Your task to perform on an android device: turn off airplane mode Image 0: 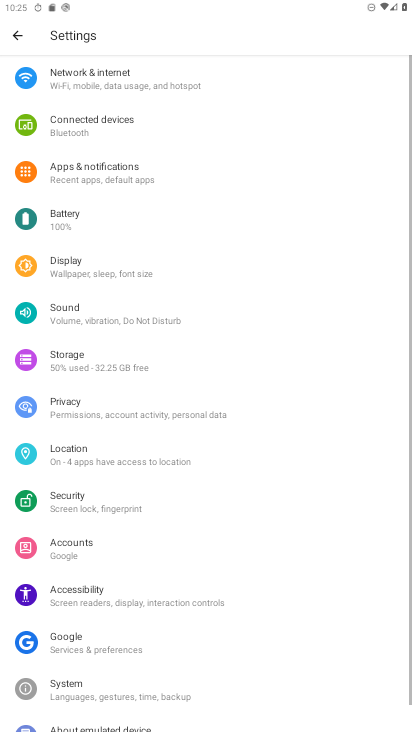
Step 0: press home button
Your task to perform on an android device: turn off airplane mode Image 1: 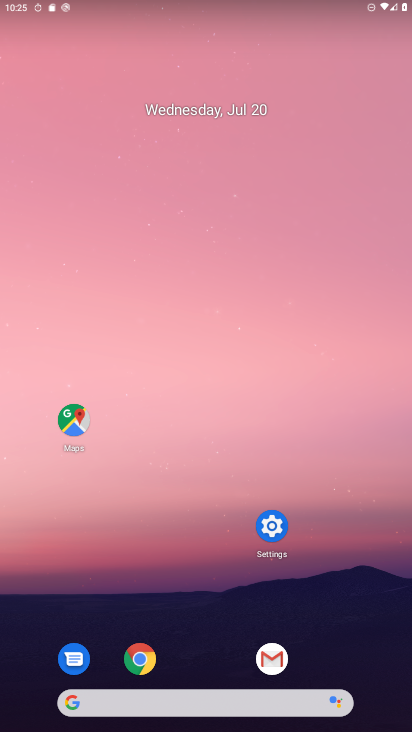
Step 1: click (268, 530)
Your task to perform on an android device: turn off airplane mode Image 2: 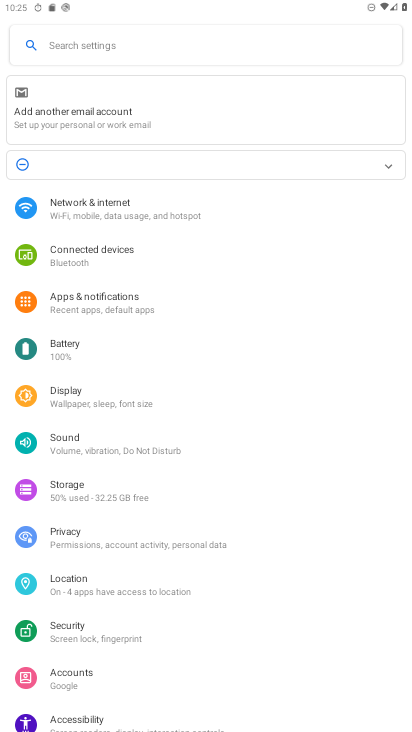
Step 2: click (113, 218)
Your task to perform on an android device: turn off airplane mode Image 3: 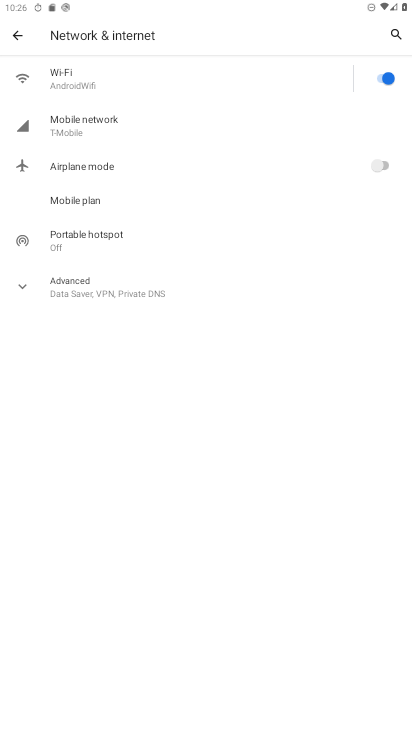
Step 3: click (313, 161)
Your task to perform on an android device: turn off airplane mode Image 4: 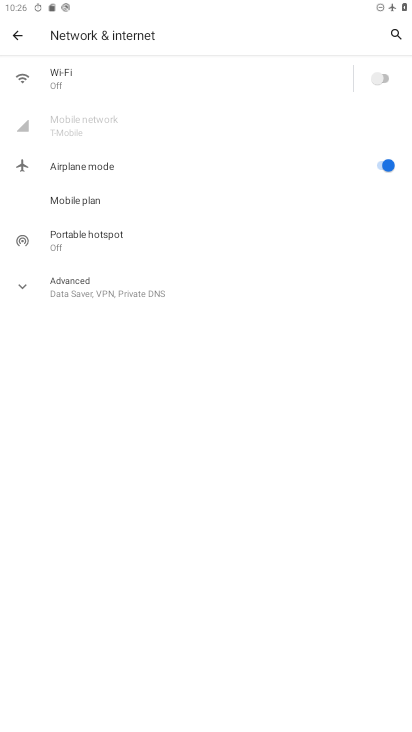
Step 4: click (313, 161)
Your task to perform on an android device: turn off airplane mode Image 5: 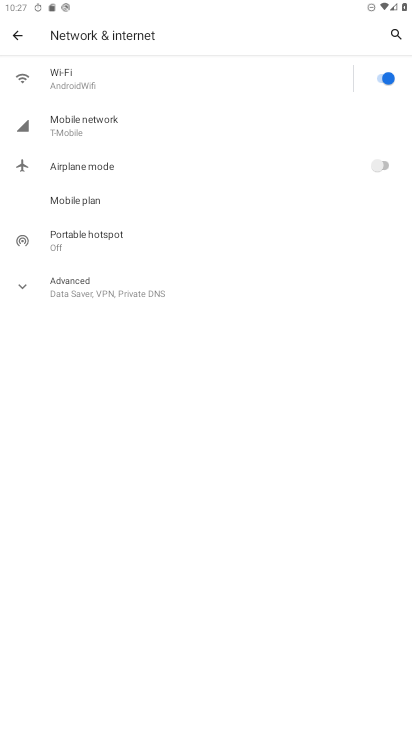
Step 5: task complete